Your task to perform on an android device: open chrome and create a bookmark for the current page Image 0: 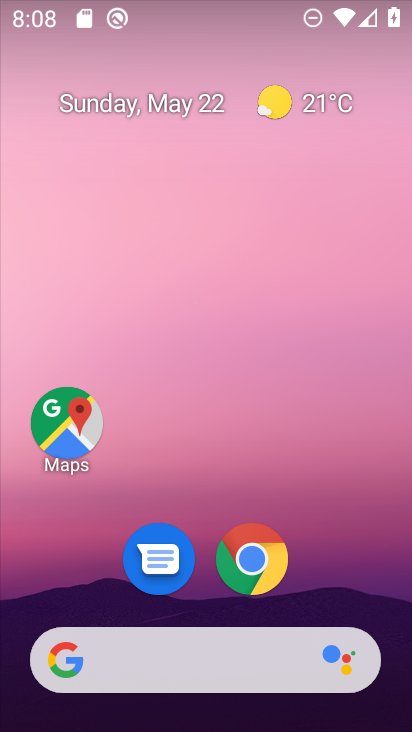
Step 0: drag from (302, 694) to (291, 295)
Your task to perform on an android device: open chrome and create a bookmark for the current page Image 1: 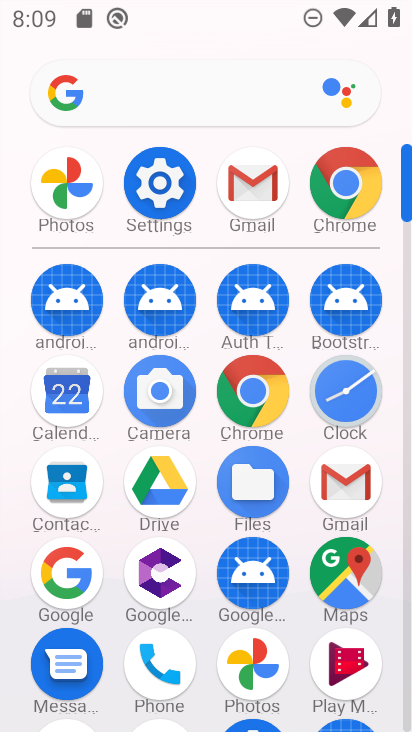
Step 1: click (176, 192)
Your task to perform on an android device: open chrome and create a bookmark for the current page Image 2: 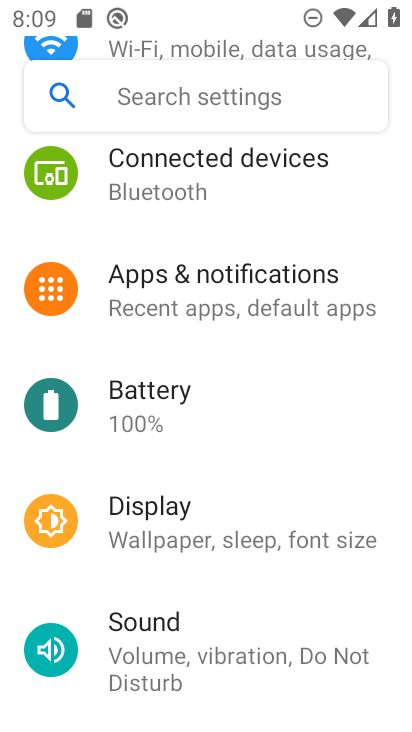
Step 2: press home button
Your task to perform on an android device: open chrome and create a bookmark for the current page Image 3: 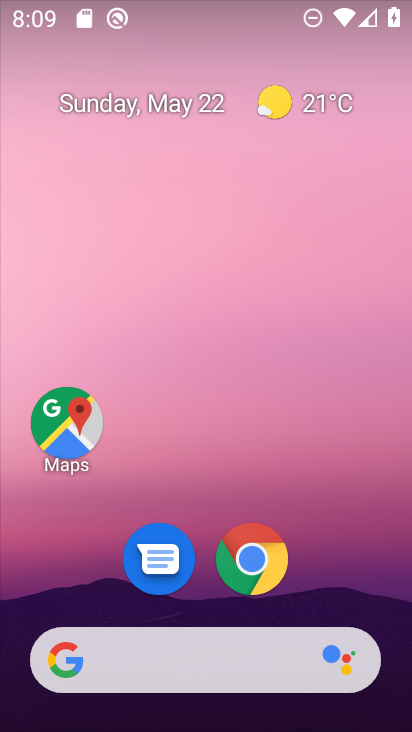
Step 3: drag from (288, 721) to (267, 83)
Your task to perform on an android device: open chrome and create a bookmark for the current page Image 4: 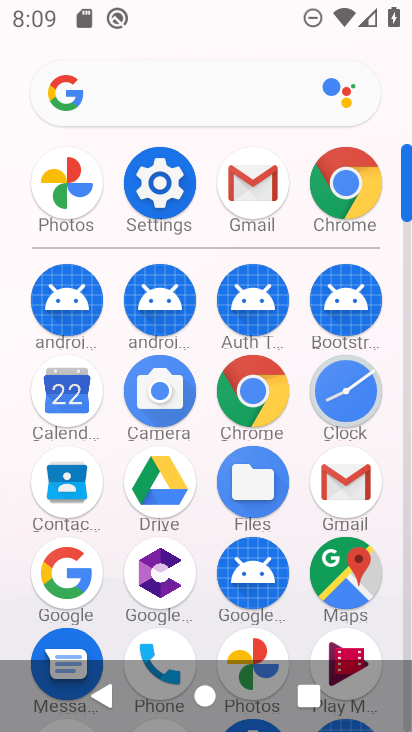
Step 4: click (352, 152)
Your task to perform on an android device: open chrome and create a bookmark for the current page Image 5: 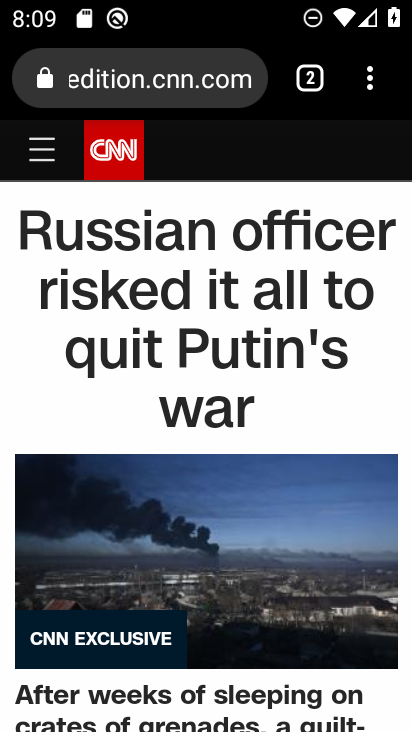
Step 5: click (353, 93)
Your task to perform on an android device: open chrome and create a bookmark for the current page Image 6: 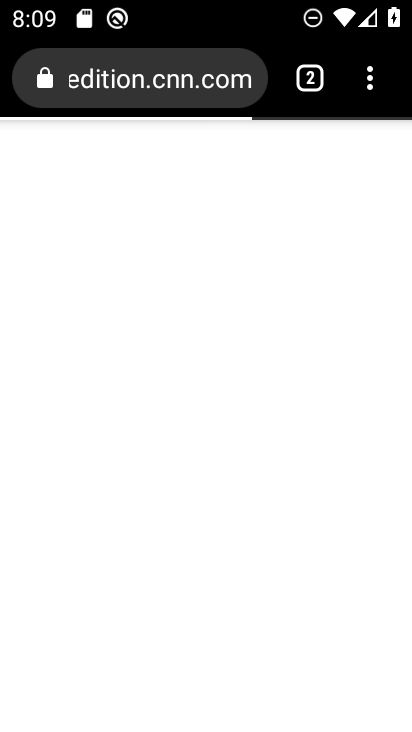
Step 6: click (364, 94)
Your task to perform on an android device: open chrome and create a bookmark for the current page Image 7: 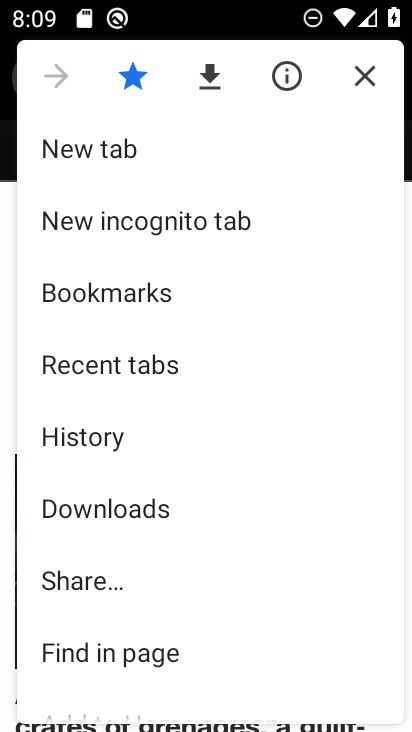
Step 7: click (117, 302)
Your task to perform on an android device: open chrome and create a bookmark for the current page Image 8: 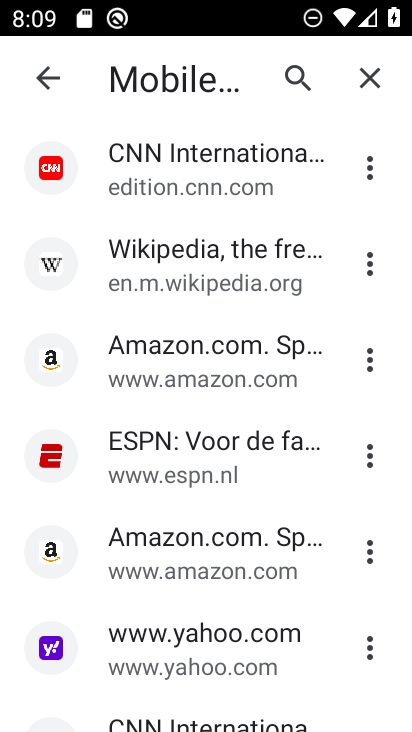
Step 8: task complete